Your task to perform on an android device: turn off airplane mode Image 0: 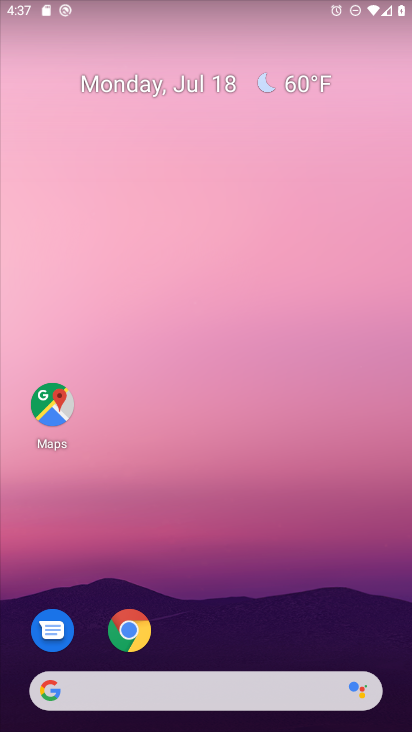
Step 0: drag from (217, 607) to (186, 197)
Your task to perform on an android device: turn off airplane mode Image 1: 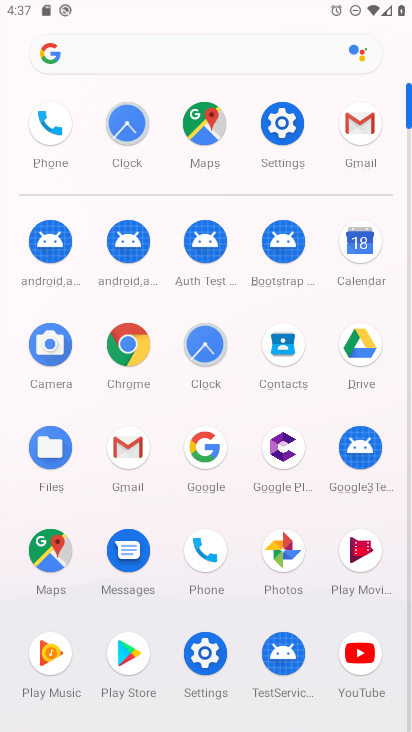
Step 1: click (284, 126)
Your task to perform on an android device: turn off airplane mode Image 2: 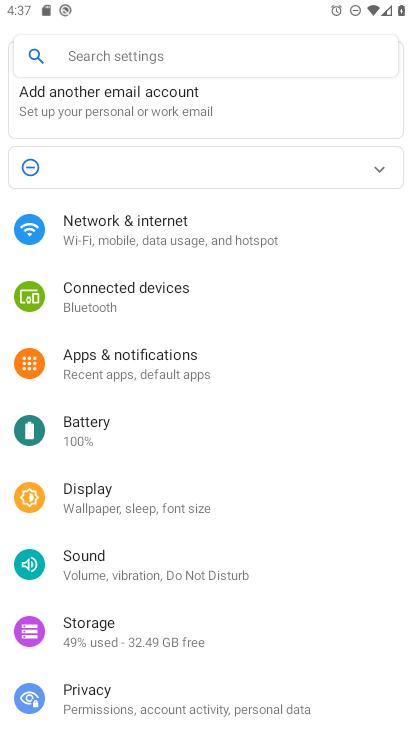
Step 2: click (127, 224)
Your task to perform on an android device: turn off airplane mode Image 3: 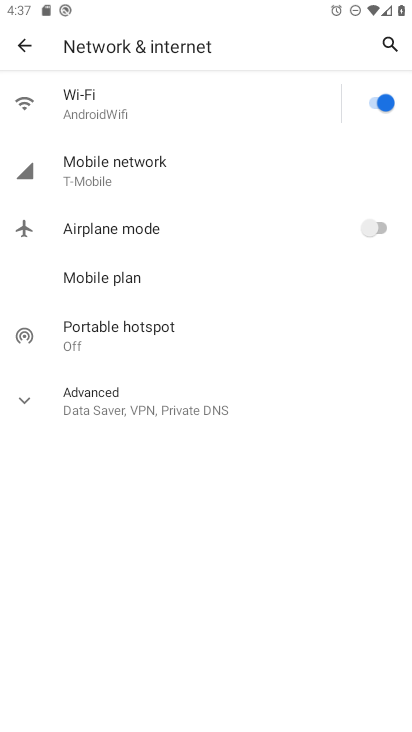
Step 3: task complete